Your task to perform on an android device: toggle notifications settings in the gmail app Image 0: 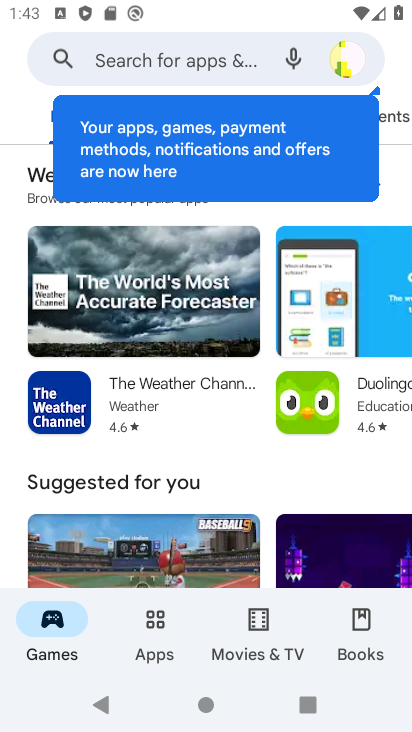
Step 0: task complete